Your task to perform on an android device: toggle javascript in the chrome app Image 0: 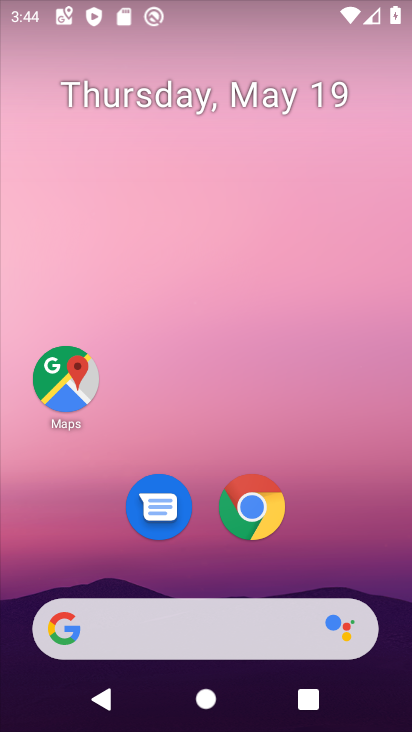
Step 0: click (253, 504)
Your task to perform on an android device: toggle javascript in the chrome app Image 1: 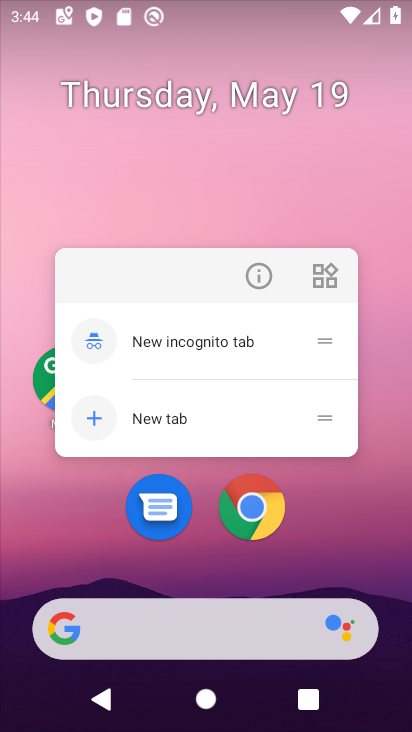
Step 1: press back button
Your task to perform on an android device: toggle javascript in the chrome app Image 2: 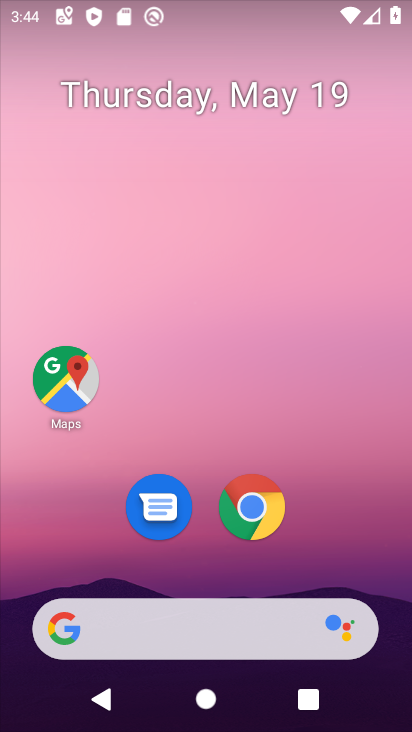
Step 2: click (267, 516)
Your task to perform on an android device: toggle javascript in the chrome app Image 3: 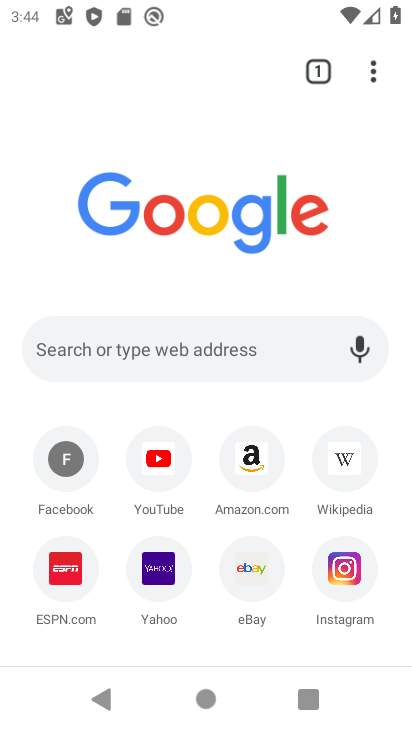
Step 3: click (377, 67)
Your task to perform on an android device: toggle javascript in the chrome app Image 4: 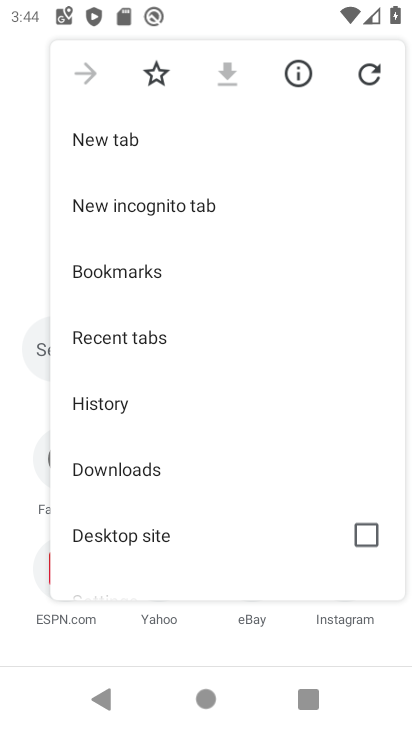
Step 4: drag from (223, 540) to (255, 278)
Your task to perform on an android device: toggle javascript in the chrome app Image 5: 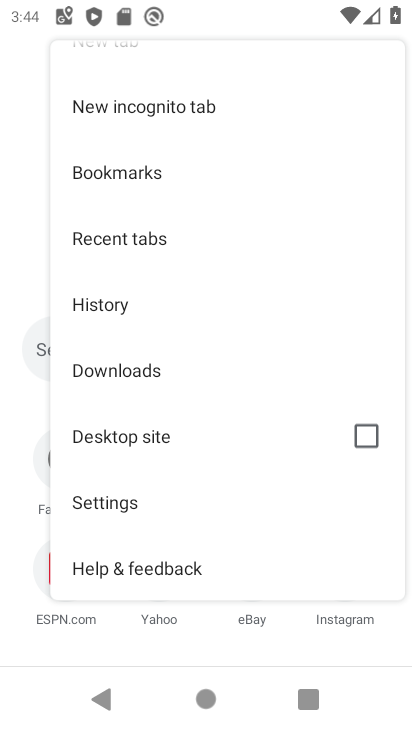
Step 5: click (117, 497)
Your task to perform on an android device: toggle javascript in the chrome app Image 6: 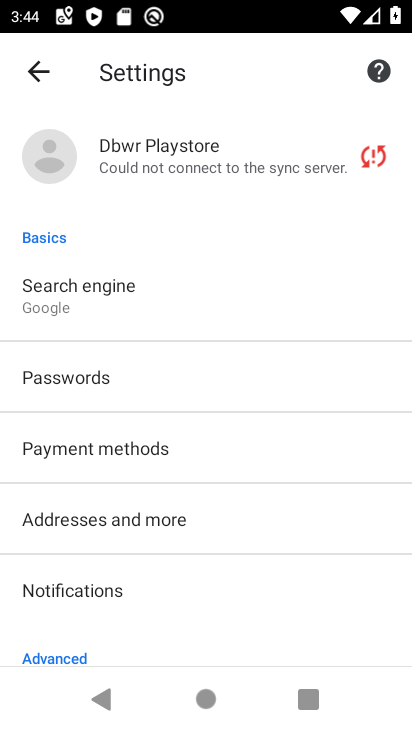
Step 6: drag from (232, 608) to (306, 289)
Your task to perform on an android device: toggle javascript in the chrome app Image 7: 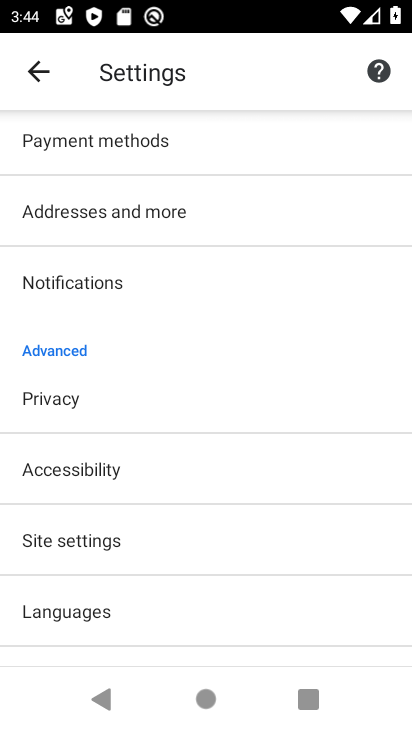
Step 7: drag from (202, 597) to (203, 476)
Your task to perform on an android device: toggle javascript in the chrome app Image 8: 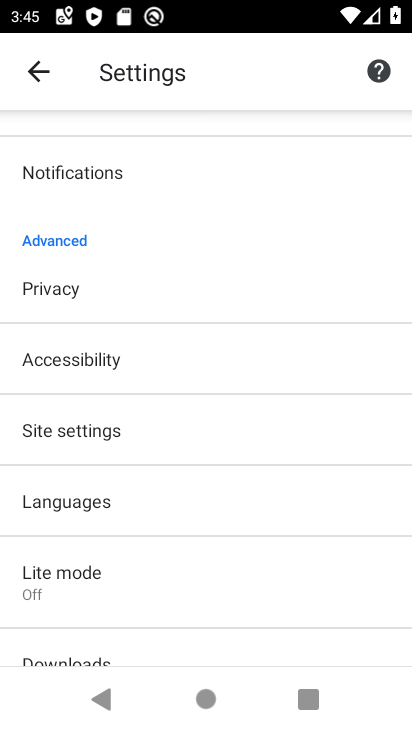
Step 8: drag from (198, 624) to (207, 479)
Your task to perform on an android device: toggle javascript in the chrome app Image 9: 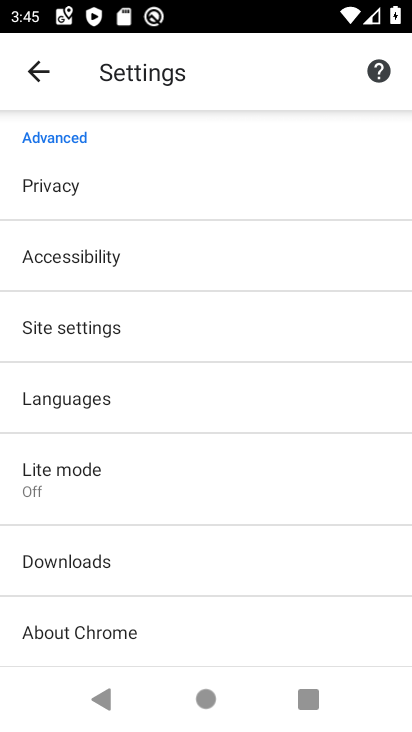
Step 9: click (58, 323)
Your task to perform on an android device: toggle javascript in the chrome app Image 10: 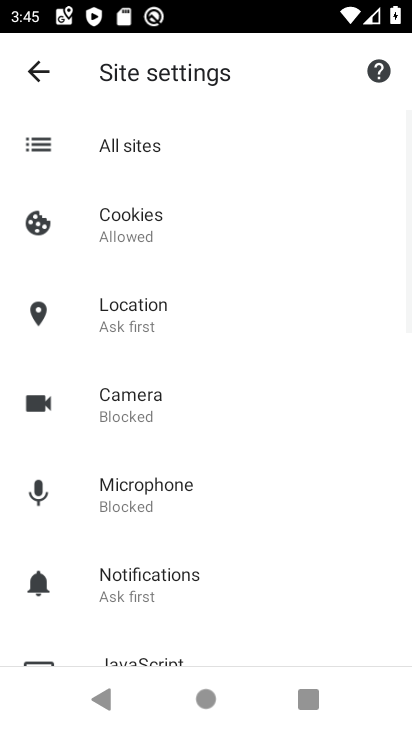
Step 10: drag from (236, 644) to (305, 377)
Your task to perform on an android device: toggle javascript in the chrome app Image 11: 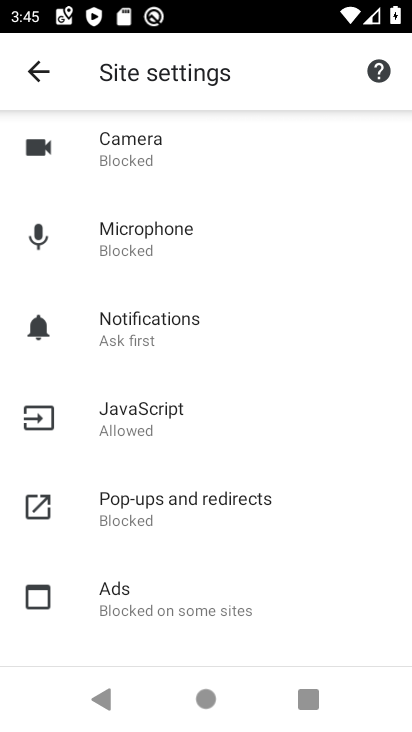
Step 11: click (181, 495)
Your task to perform on an android device: toggle javascript in the chrome app Image 12: 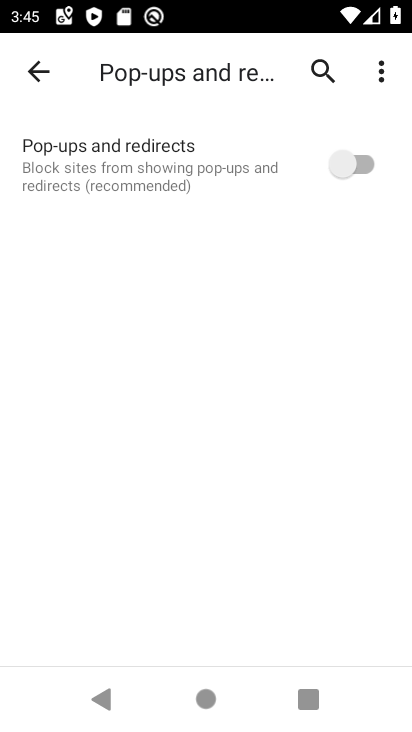
Step 12: click (359, 167)
Your task to perform on an android device: toggle javascript in the chrome app Image 13: 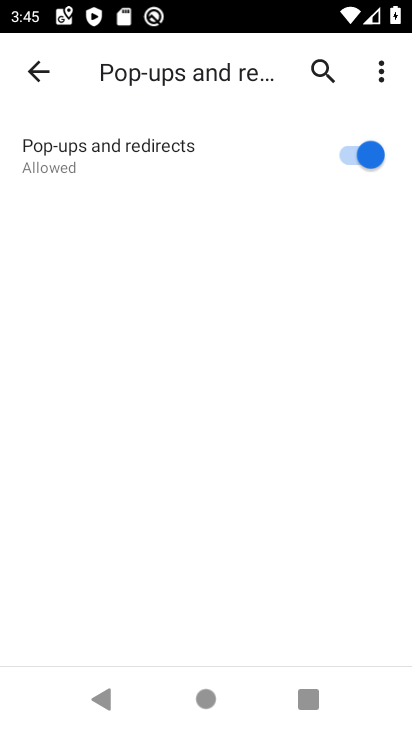
Step 13: task complete